Your task to perform on an android device: install app "Adobe Acrobat Reader" Image 0: 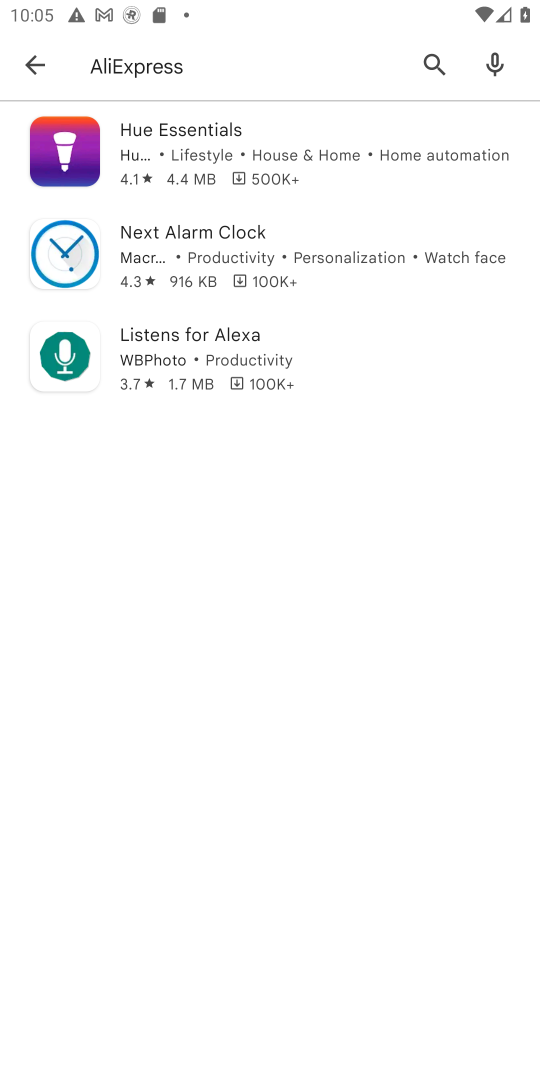
Step 0: press home button
Your task to perform on an android device: install app "Adobe Acrobat Reader" Image 1: 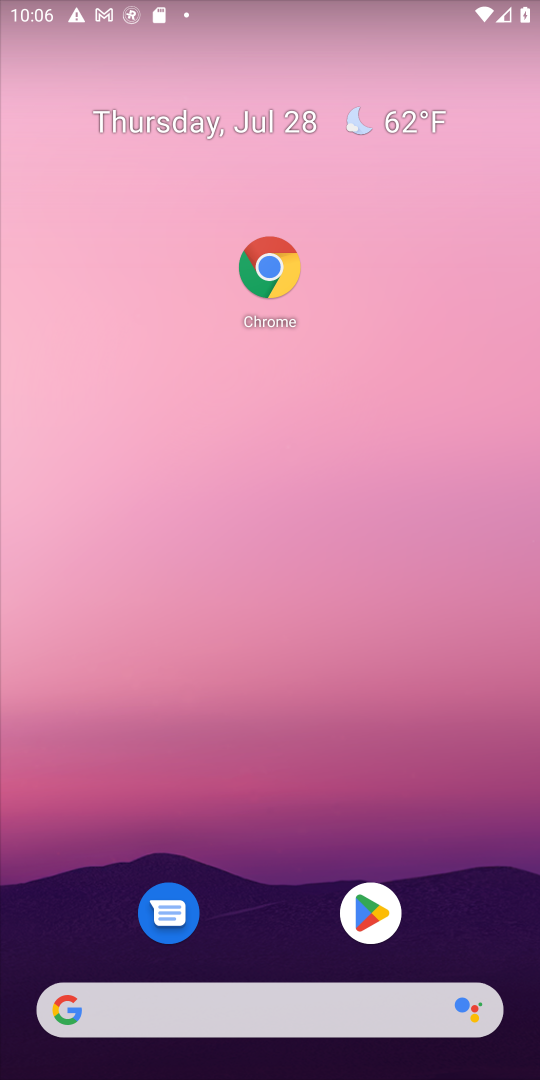
Step 1: click (367, 911)
Your task to perform on an android device: install app "Adobe Acrobat Reader" Image 2: 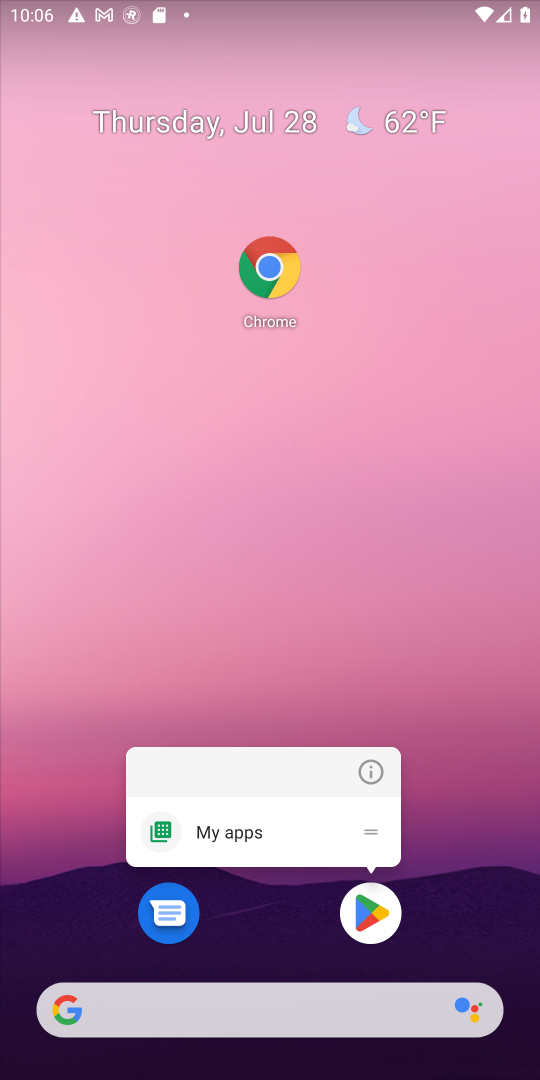
Step 2: click (358, 921)
Your task to perform on an android device: install app "Adobe Acrobat Reader" Image 3: 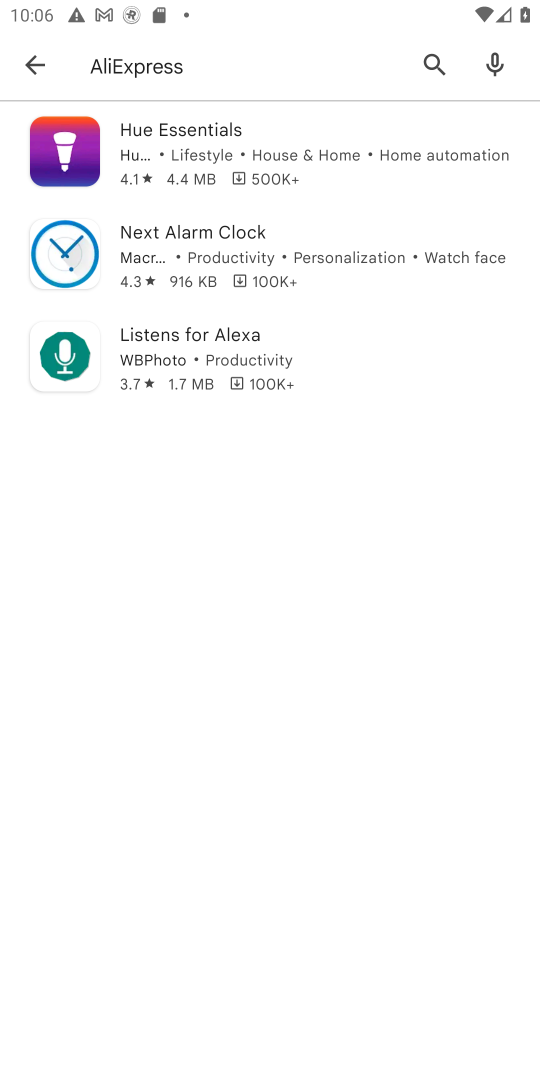
Step 3: click (422, 64)
Your task to perform on an android device: install app "Adobe Acrobat Reader" Image 4: 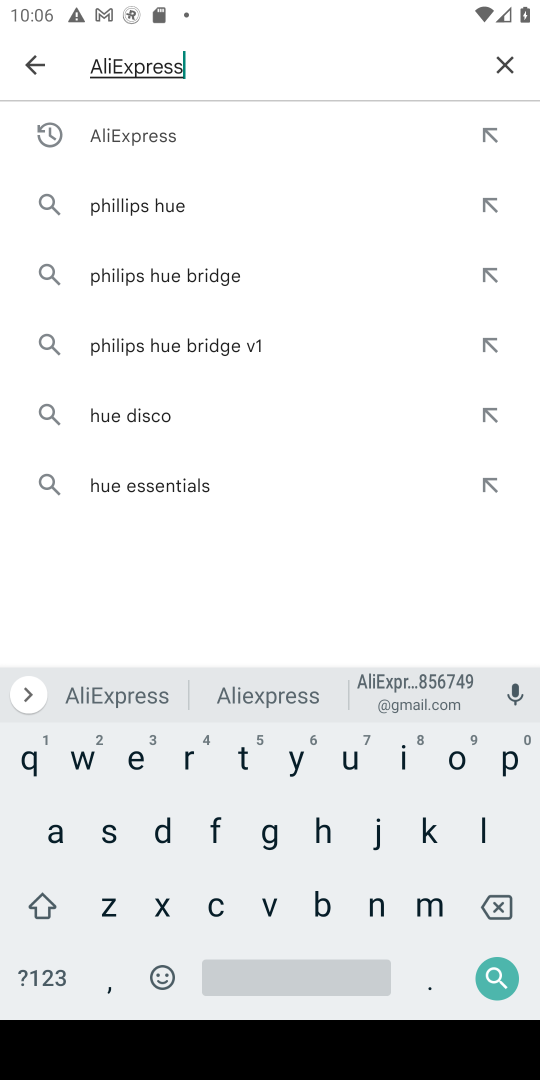
Step 4: click (507, 63)
Your task to perform on an android device: install app "Adobe Acrobat Reader" Image 5: 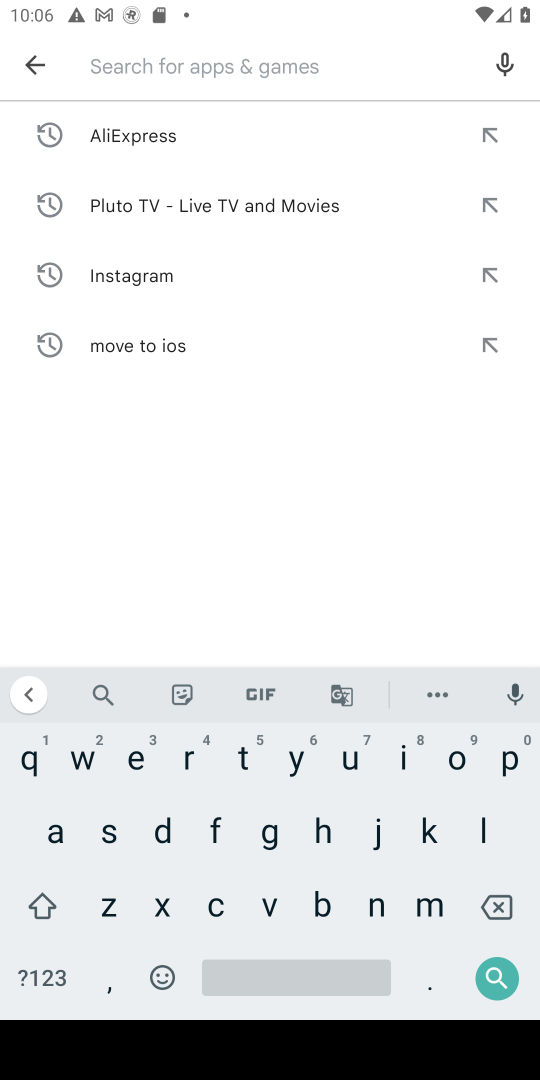
Step 5: click (56, 830)
Your task to perform on an android device: install app "Adobe Acrobat Reader" Image 6: 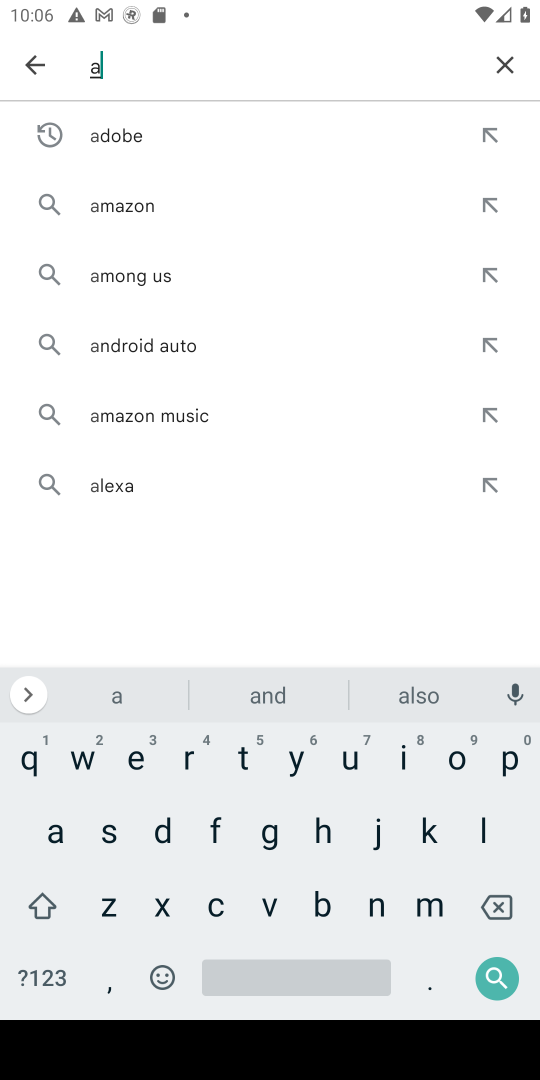
Step 6: click (183, 140)
Your task to perform on an android device: install app "Adobe Acrobat Reader" Image 7: 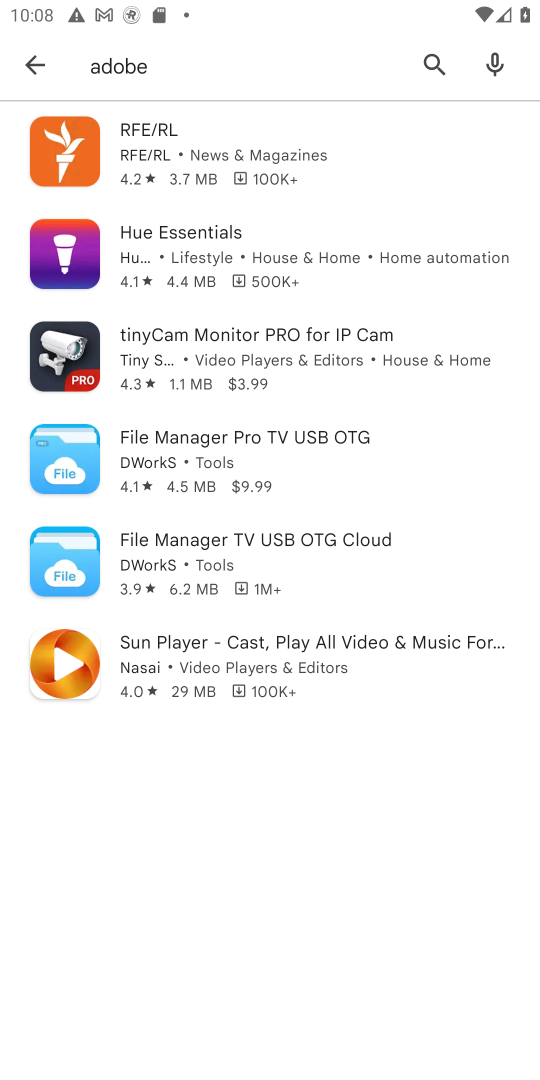
Step 7: task complete